Your task to perform on an android device: Search for dining sets on article.com Image 0: 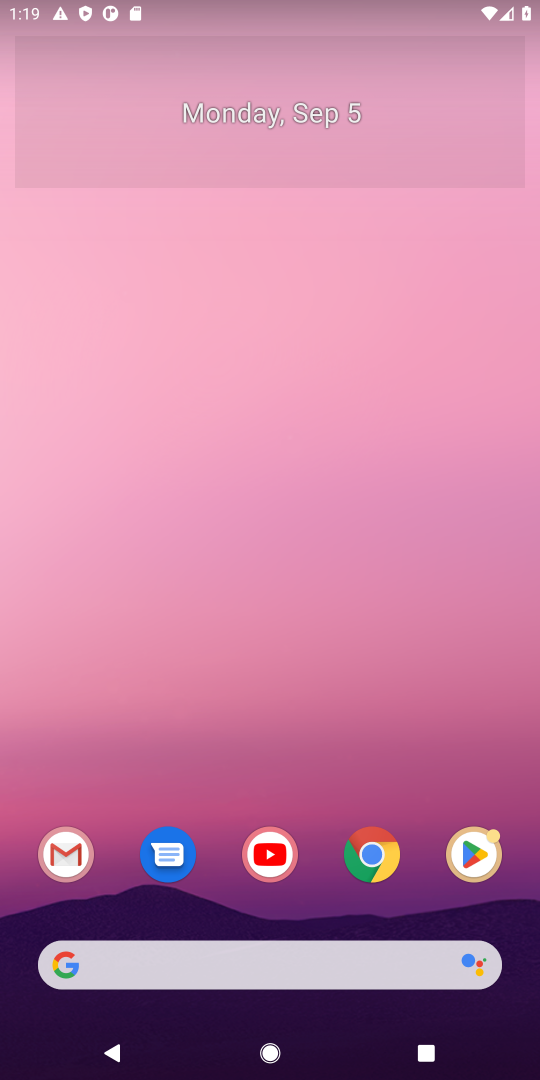
Step 0: press home button
Your task to perform on an android device: Search for dining sets on article.com Image 1: 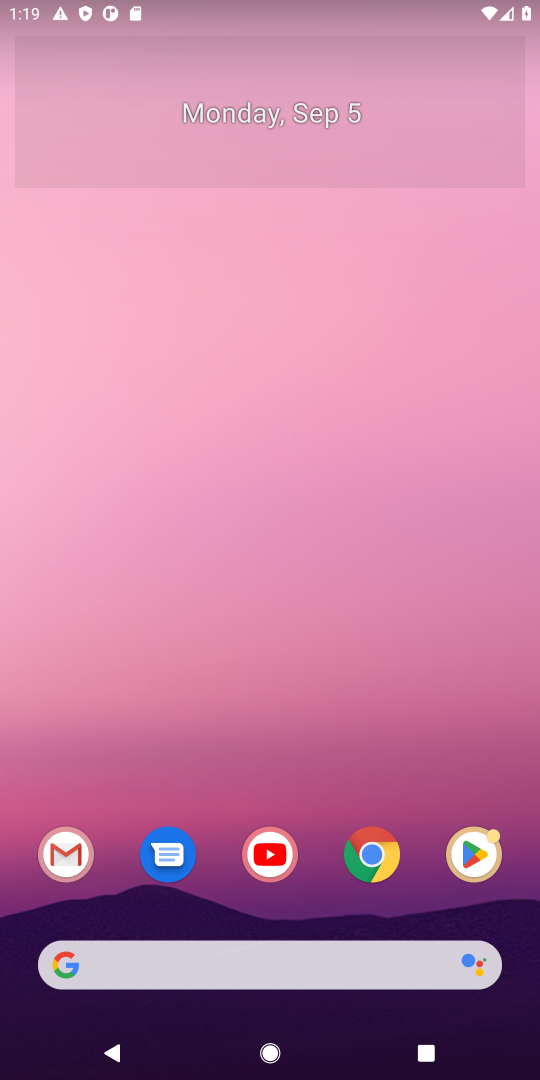
Step 1: click (349, 968)
Your task to perform on an android device: Search for dining sets on article.com Image 2: 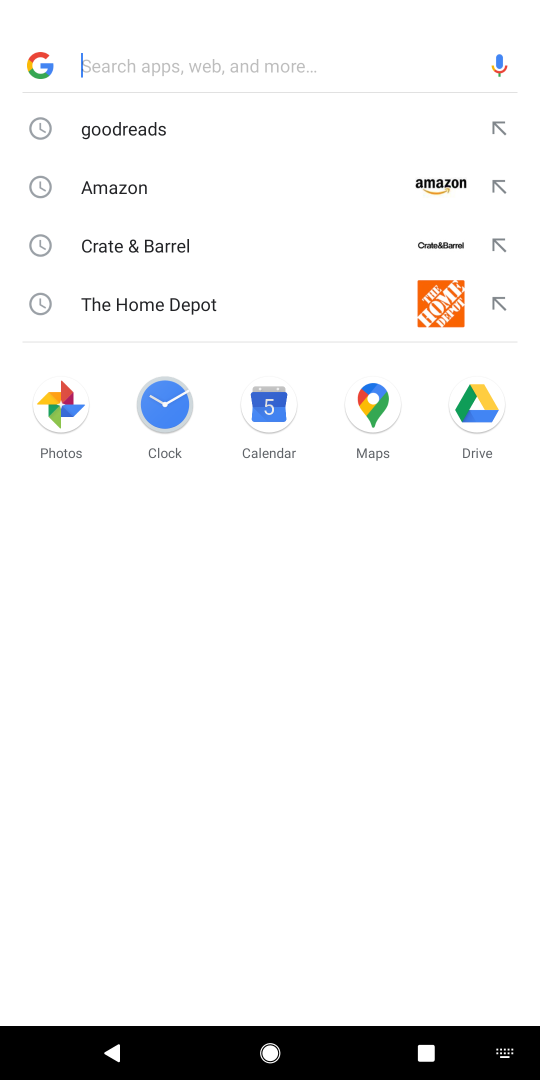
Step 2: type "article.com"
Your task to perform on an android device: Search for dining sets on article.com Image 3: 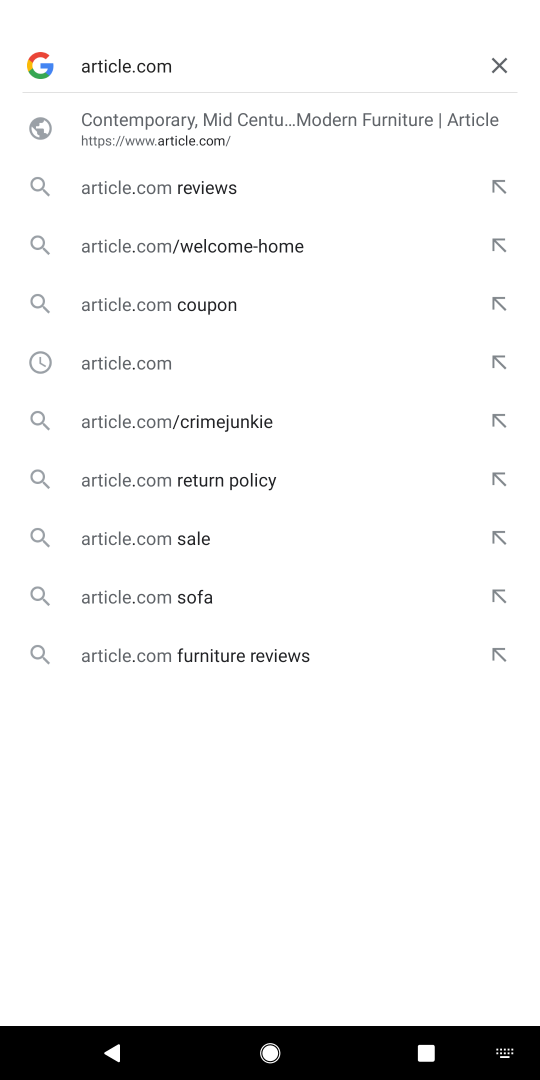
Step 3: press enter
Your task to perform on an android device: Search for dining sets on article.com Image 4: 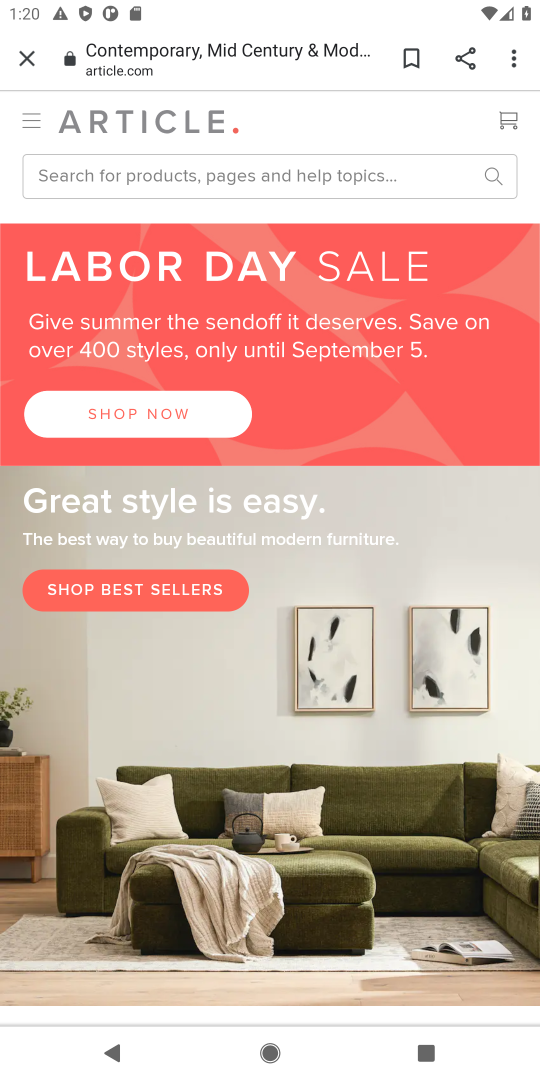
Step 4: click (87, 172)
Your task to perform on an android device: Search for dining sets on article.com Image 5: 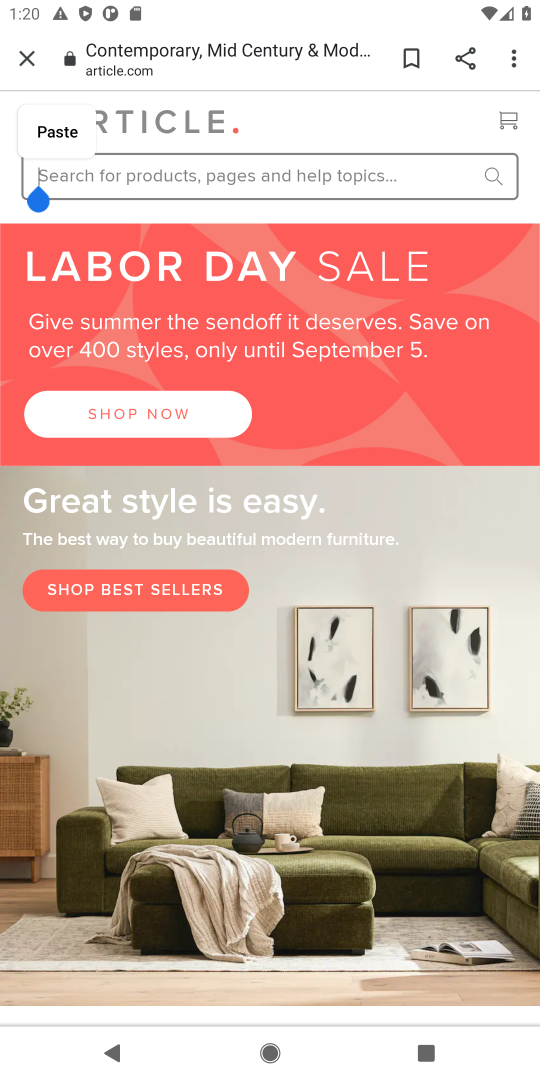
Step 5: type "dining sets"
Your task to perform on an android device: Search for dining sets on article.com Image 6: 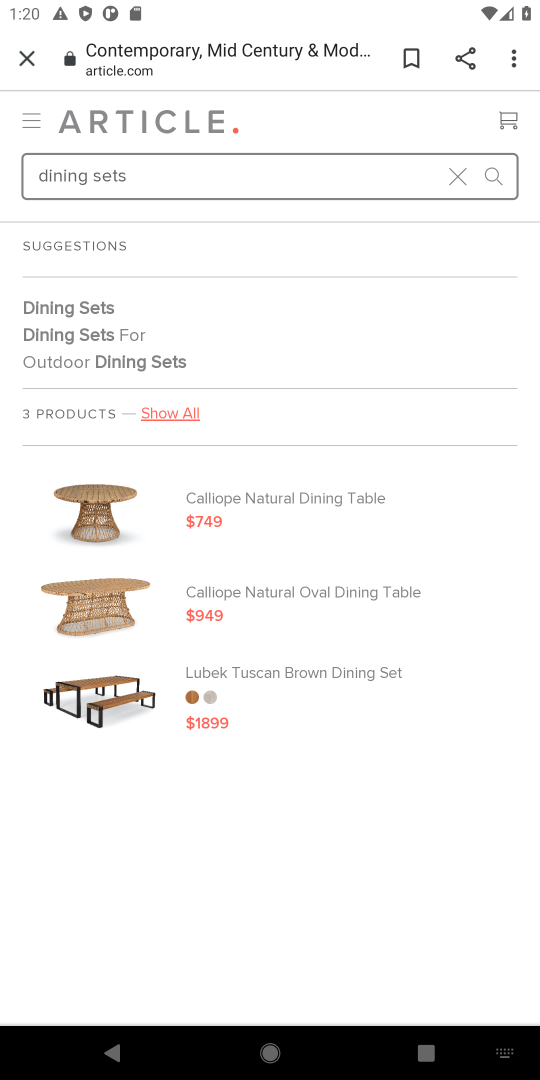
Step 6: task complete